Your task to perform on an android device: empty trash in the gmail app Image 0: 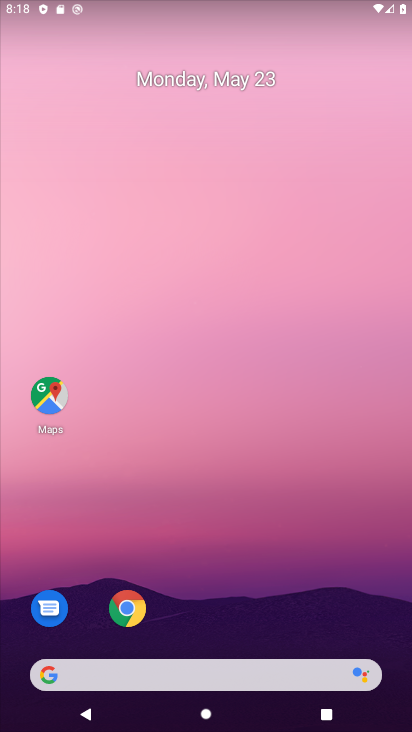
Step 0: drag from (229, 729) to (233, 1)
Your task to perform on an android device: empty trash in the gmail app Image 1: 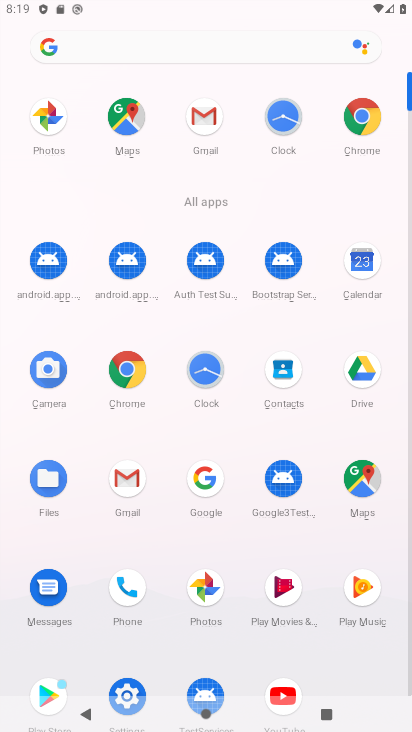
Step 1: click (127, 479)
Your task to perform on an android device: empty trash in the gmail app Image 2: 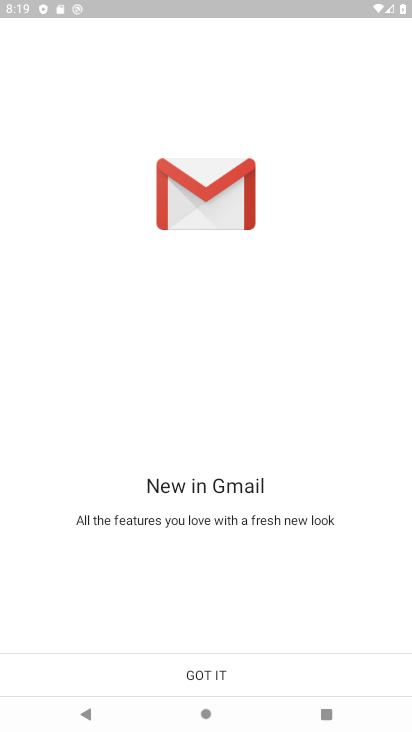
Step 2: click (199, 670)
Your task to perform on an android device: empty trash in the gmail app Image 3: 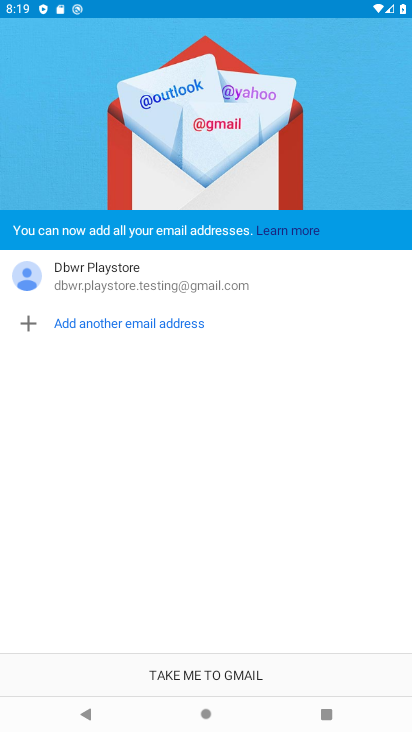
Step 3: click (199, 670)
Your task to perform on an android device: empty trash in the gmail app Image 4: 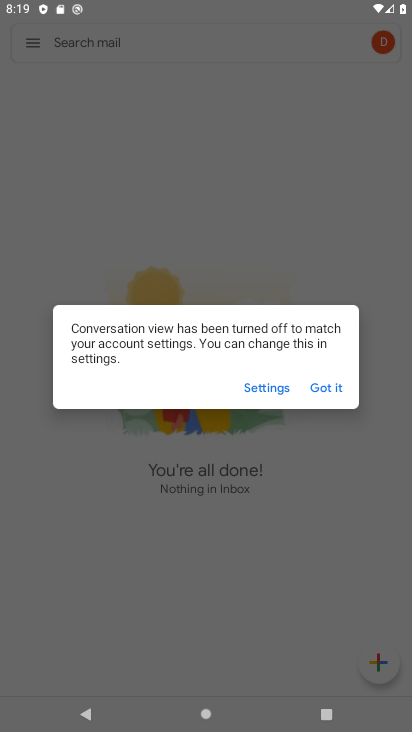
Step 4: click (317, 387)
Your task to perform on an android device: empty trash in the gmail app Image 5: 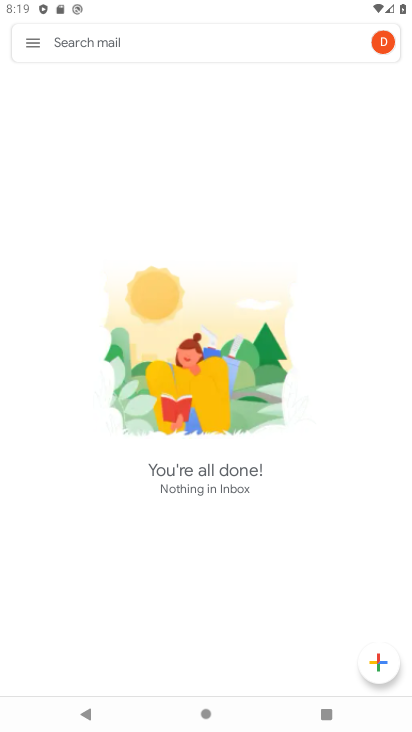
Step 5: click (27, 45)
Your task to perform on an android device: empty trash in the gmail app Image 6: 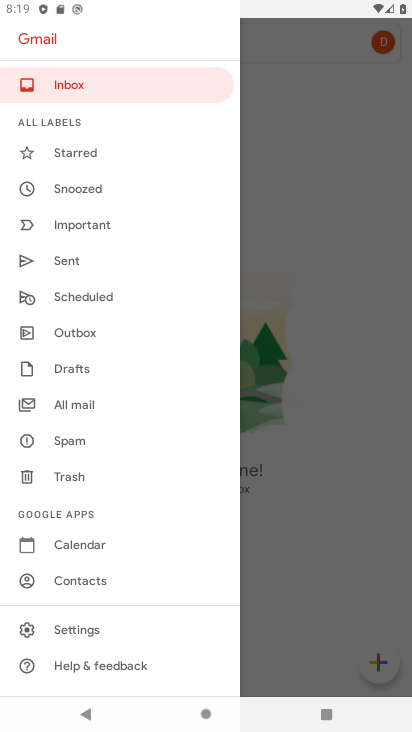
Step 6: click (61, 472)
Your task to perform on an android device: empty trash in the gmail app Image 7: 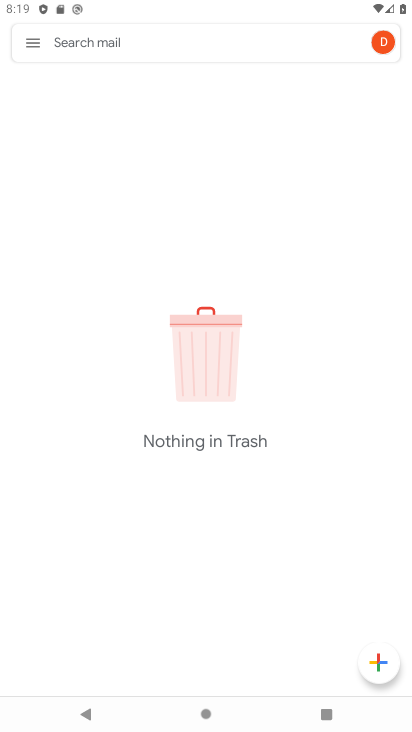
Step 7: task complete